Your task to perform on an android device: see creations saved in the google photos Image 0: 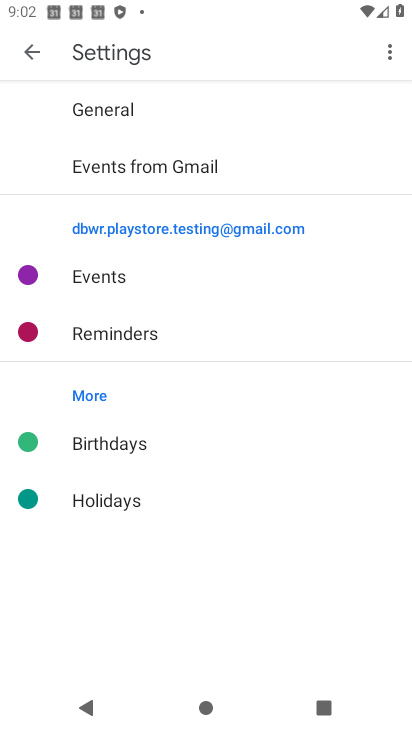
Step 0: drag from (200, 639) to (169, 293)
Your task to perform on an android device: see creations saved in the google photos Image 1: 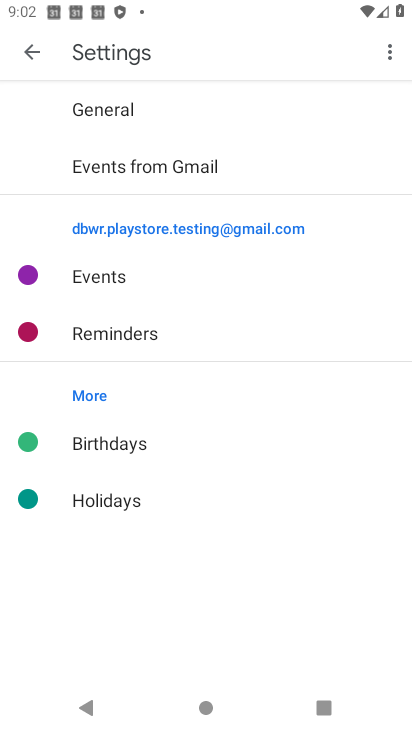
Step 1: press home button
Your task to perform on an android device: see creations saved in the google photos Image 2: 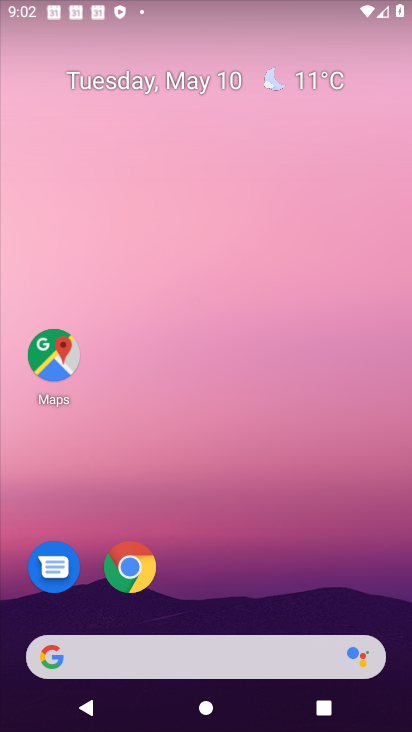
Step 2: drag from (166, 625) to (169, 284)
Your task to perform on an android device: see creations saved in the google photos Image 3: 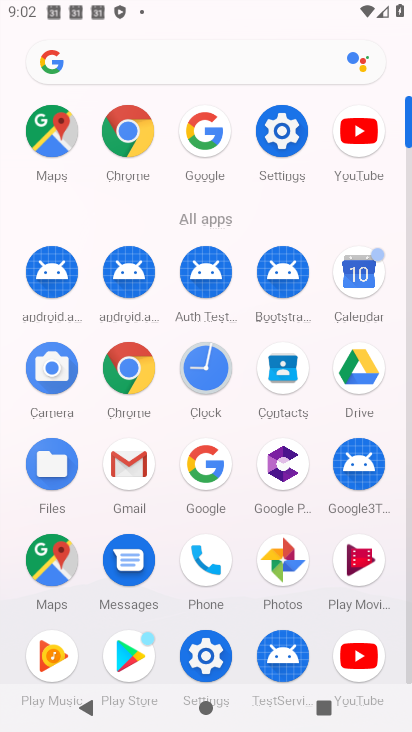
Step 3: click (281, 556)
Your task to perform on an android device: see creations saved in the google photos Image 4: 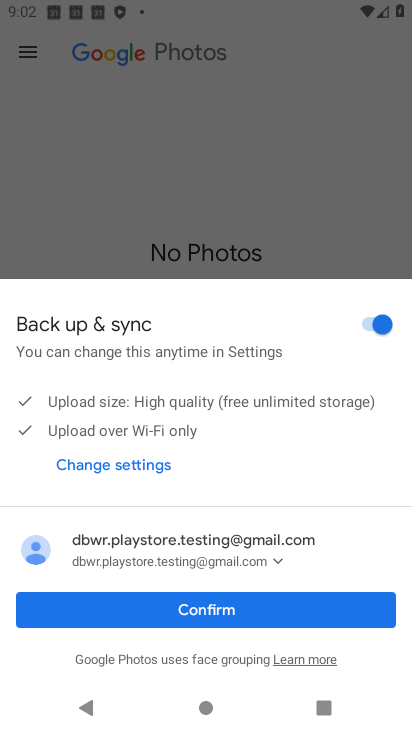
Step 4: click (186, 619)
Your task to perform on an android device: see creations saved in the google photos Image 5: 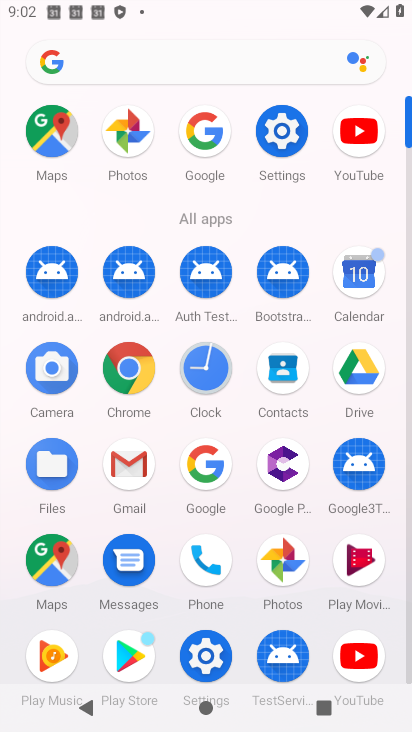
Step 5: click (288, 565)
Your task to perform on an android device: see creations saved in the google photos Image 6: 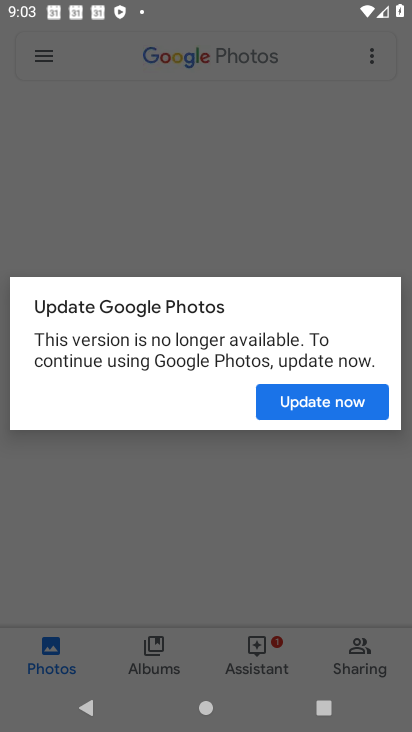
Step 6: click (299, 392)
Your task to perform on an android device: see creations saved in the google photos Image 7: 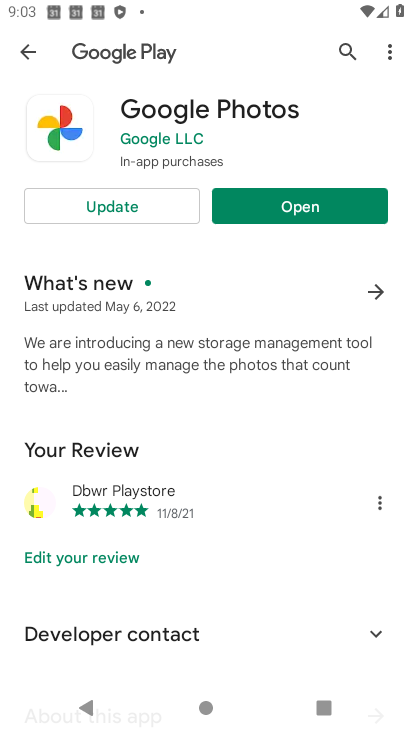
Step 7: click (287, 209)
Your task to perform on an android device: see creations saved in the google photos Image 8: 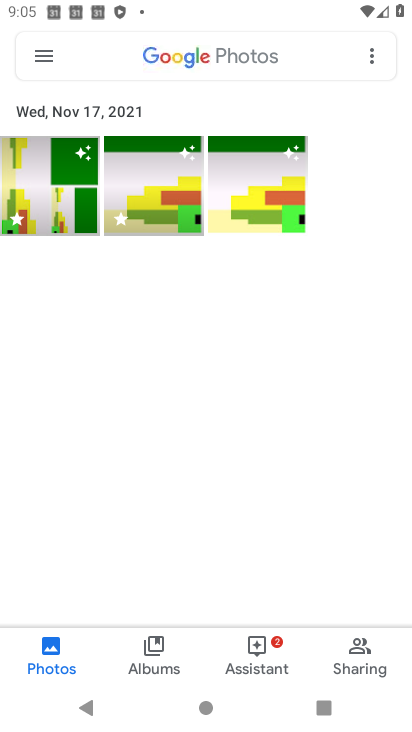
Step 8: click (152, 658)
Your task to perform on an android device: see creations saved in the google photos Image 9: 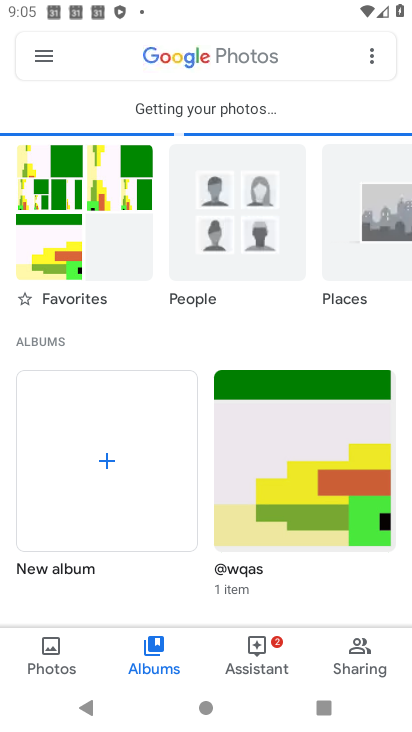
Step 9: task complete